Your task to perform on an android device: Set the phone to "Do not disturb". Image 0: 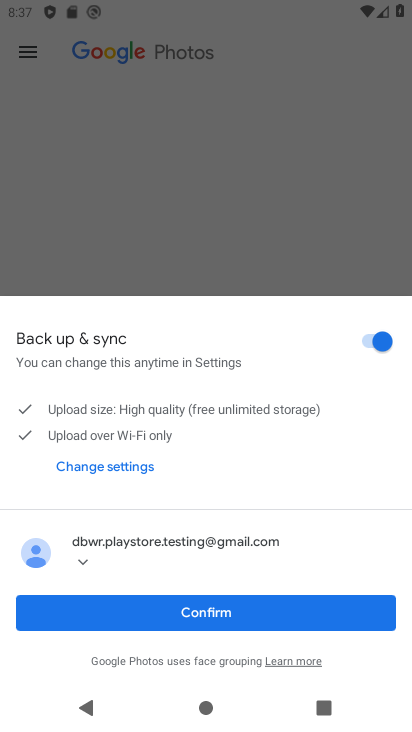
Step 0: press home button
Your task to perform on an android device: Set the phone to "Do not disturb". Image 1: 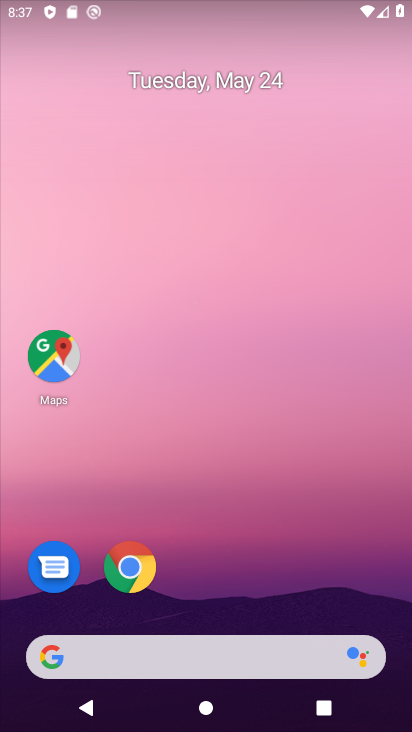
Step 1: drag from (119, 656) to (211, 127)
Your task to perform on an android device: Set the phone to "Do not disturb". Image 2: 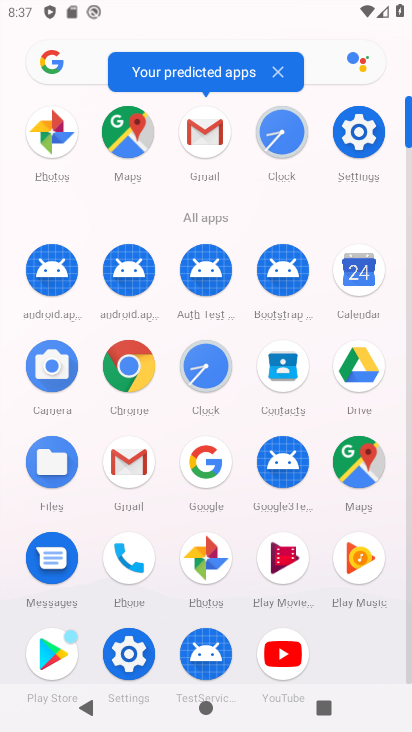
Step 2: click (355, 141)
Your task to perform on an android device: Set the phone to "Do not disturb". Image 3: 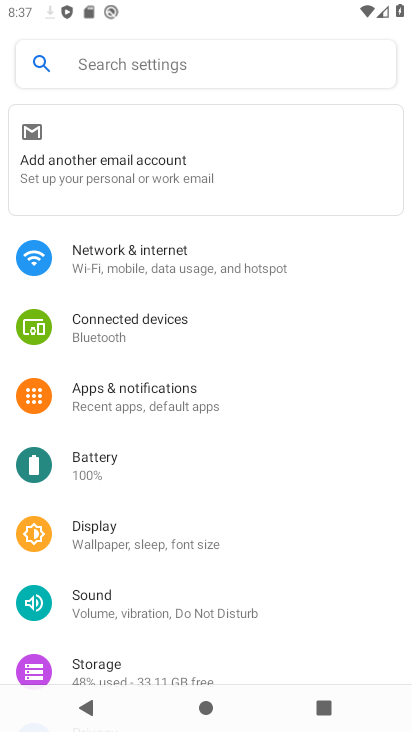
Step 3: drag from (162, 662) to (258, 366)
Your task to perform on an android device: Set the phone to "Do not disturb". Image 4: 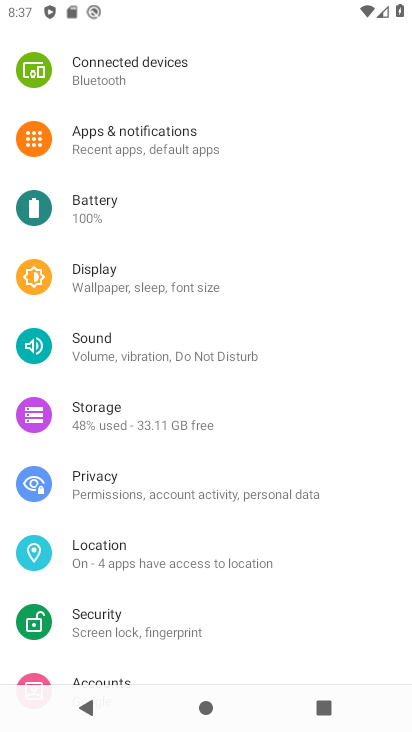
Step 4: click (123, 345)
Your task to perform on an android device: Set the phone to "Do not disturb". Image 5: 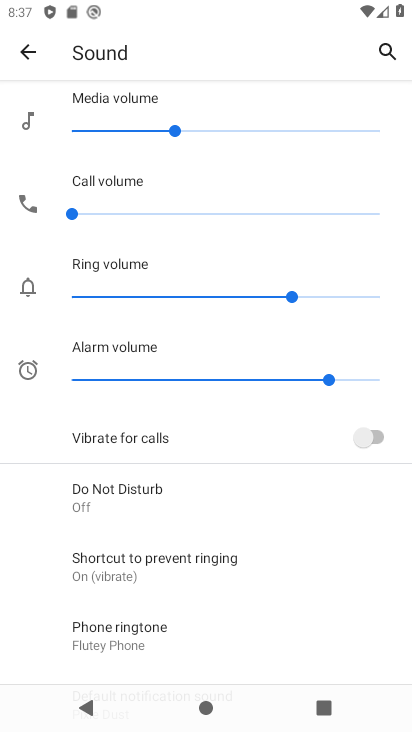
Step 5: click (125, 496)
Your task to perform on an android device: Set the phone to "Do not disturb". Image 6: 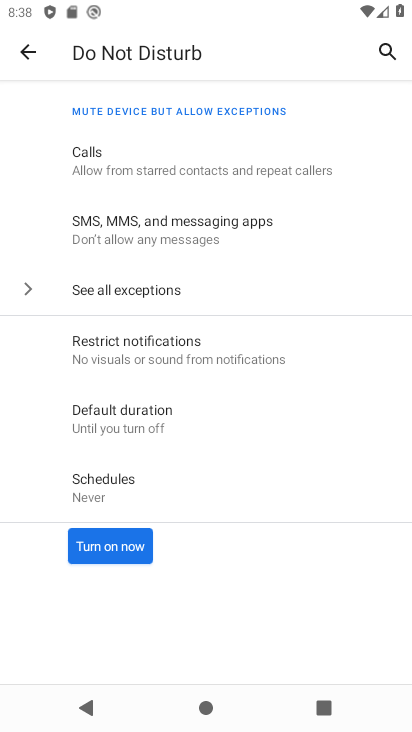
Step 6: click (106, 547)
Your task to perform on an android device: Set the phone to "Do not disturb". Image 7: 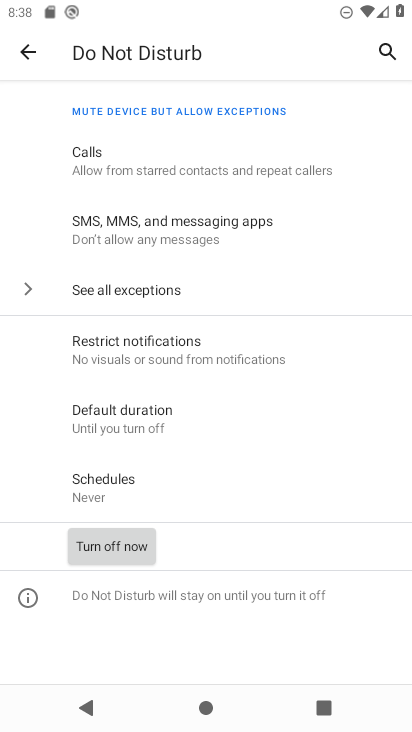
Step 7: task complete